Your task to perform on an android device: find which apps use the phone's location Image 0: 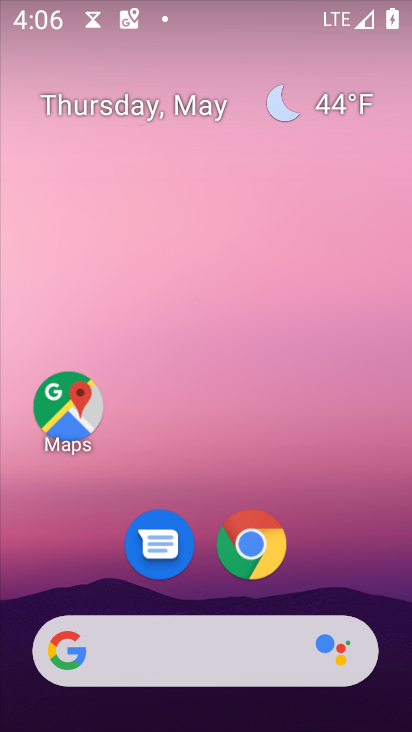
Step 0: drag from (314, 592) to (409, 207)
Your task to perform on an android device: find which apps use the phone's location Image 1: 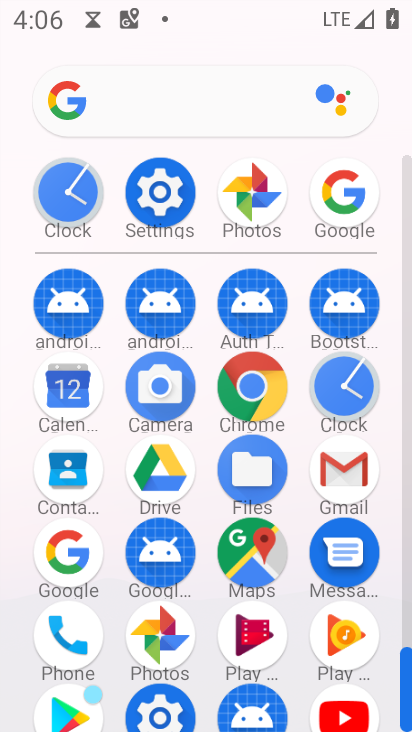
Step 1: click (157, 180)
Your task to perform on an android device: find which apps use the phone's location Image 2: 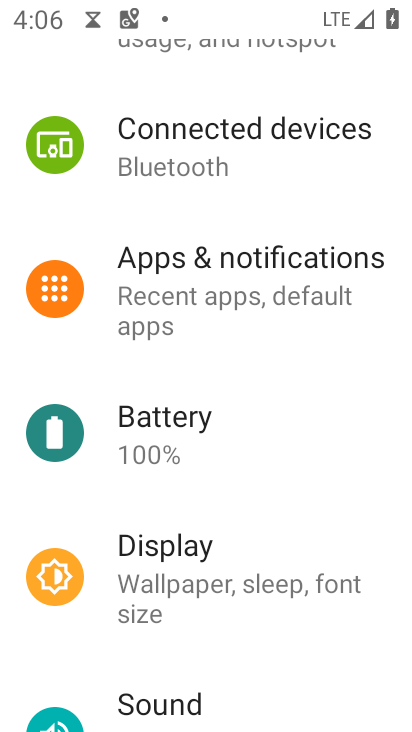
Step 2: drag from (213, 614) to (241, 414)
Your task to perform on an android device: find which apps use the phone's location Image 3: 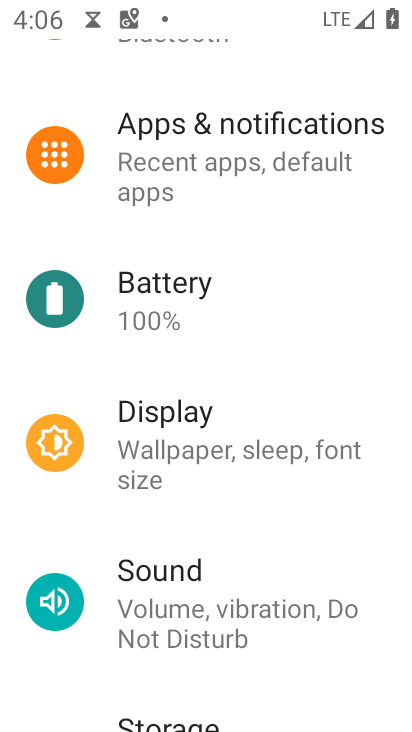
Step 3: drag from (179, 609) to (226, 457)
Your task to perform on an android device: find which apps use the phone's location Image 4: 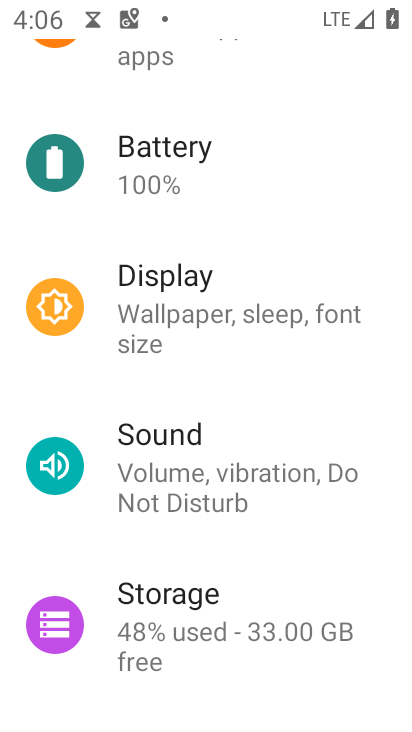
Step 4: drag from (229, 604) to (256, 460)
Your task to perform on an android device: find which apps use the phone's location Image 5: 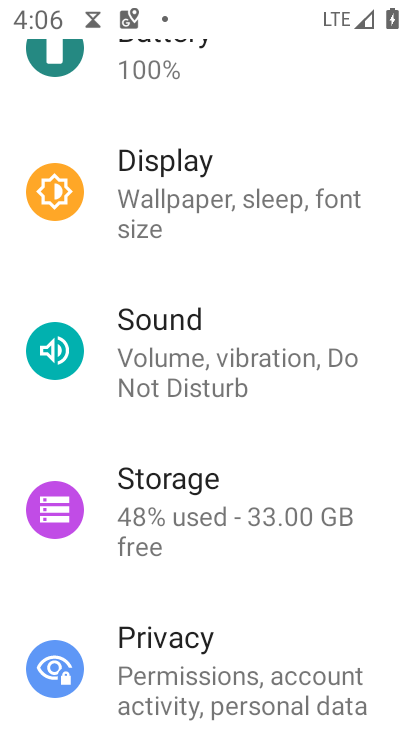
Step 5: drag from (215, 605) to (217, 441)
Your task to perform on an android device: find which apps use the phone's location Image 6: 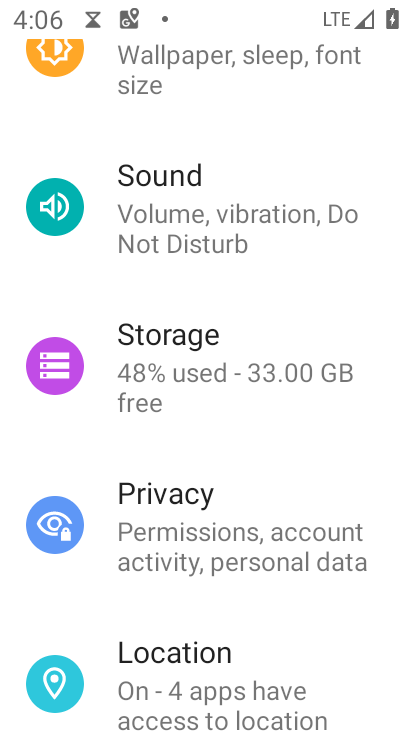
Step 6: drag from (194, 601) to (232, 369)
Your task to perform on an android device: find which apps use the phone's location Image 7: 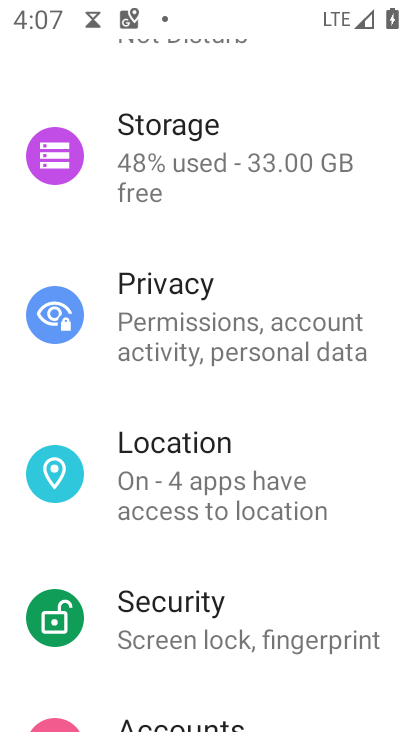
Step 7: click (221, 478)
Your task to perform on an android device: find which apps use the phone's location Image 8: 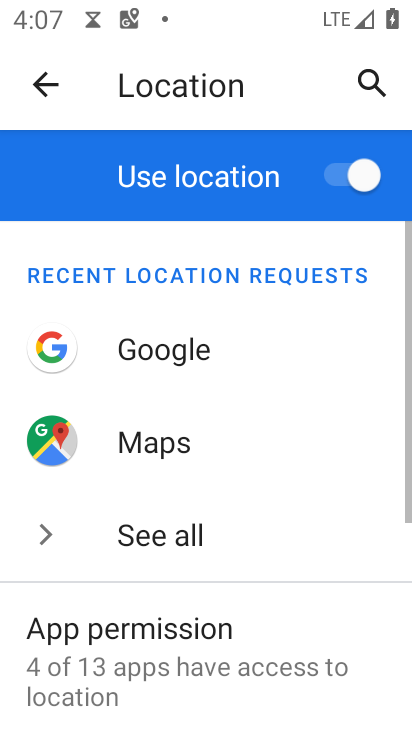
Step 8: drag from (209, 623) to (236, 422)
Your task to perform on an android device: find which apps use the phone's location Image 9: 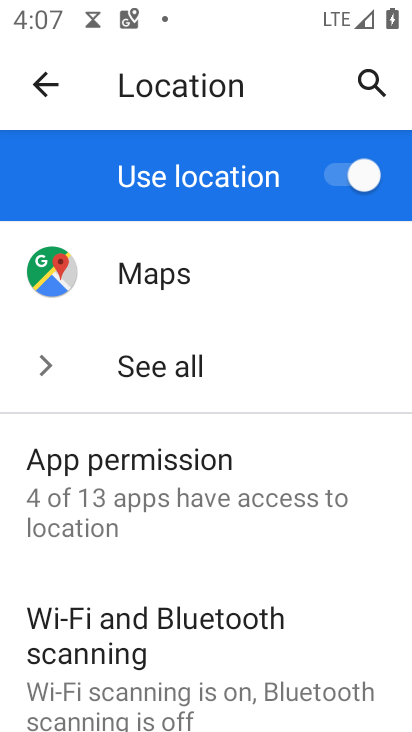
Step 9: click (172, 489)
Your task to perform on an android device: find which apps use the phone's location Image 10: 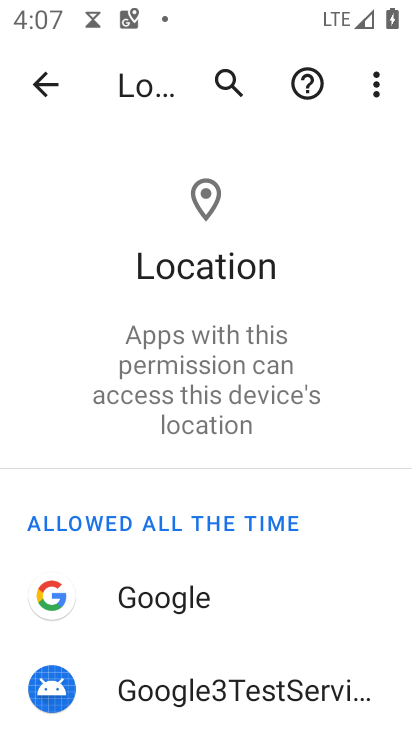
Step 10: task complete